Your task to perform on an android device: move an email to a new category in the gmail app Image 0: 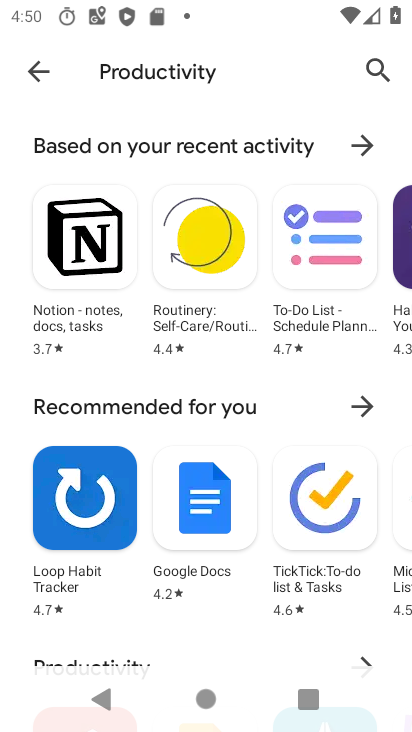
Step 0: press home button
Your task to perform on an android device: move an email to a new category in the gmail app Image 1: 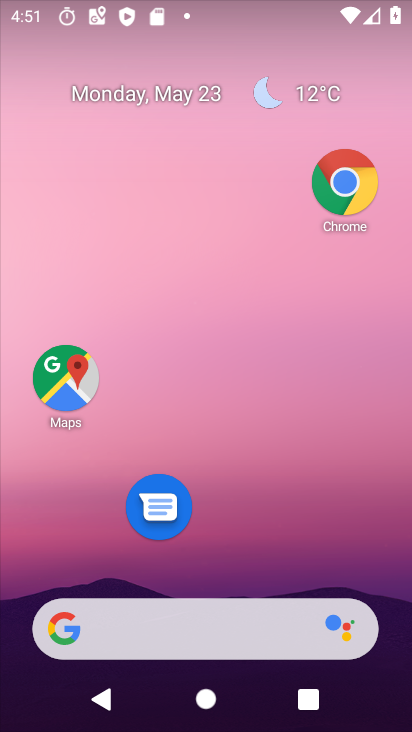
Step 1: drag from (253, 404) to (251, 114)
Your task to perform on an android device: move an email to a new category in the gmail app Image 2: 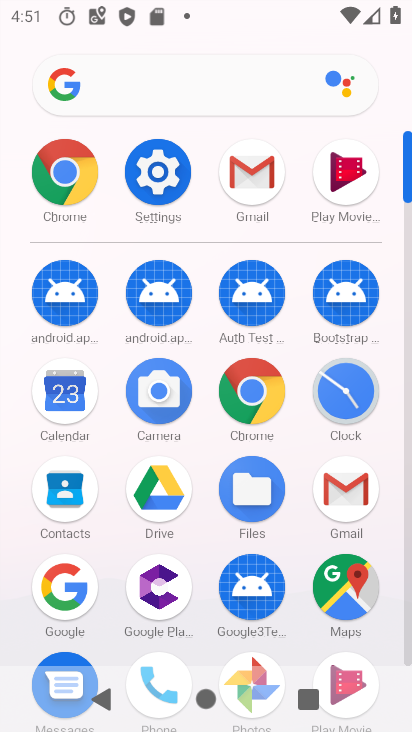
Step 2: click (229, 163)
Your task to perform on an android device: move an email to a new category in the gmail app Image 3: 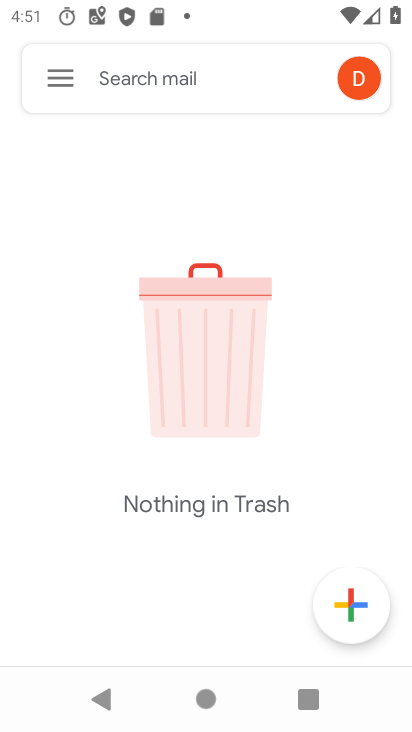
Step 3: click (47, 63)
Your task to perform on an android device: move an email to a new category in the gmail app Image 4: 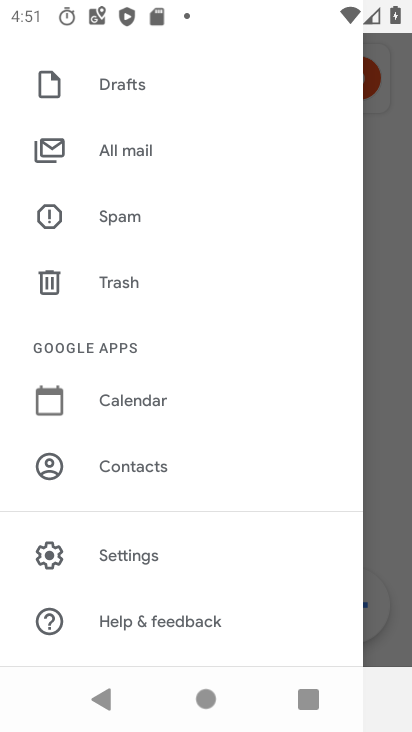
Step 4: click (141, 158)
Your task to perform on an android device: move an email to a new category in the gmail app Image 5: 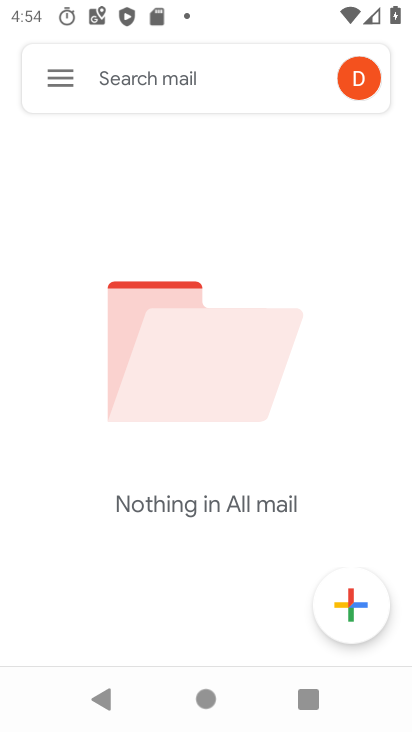
Step 5: task complete